Your task to perform on an android device: Open ESPN.com Image 0: 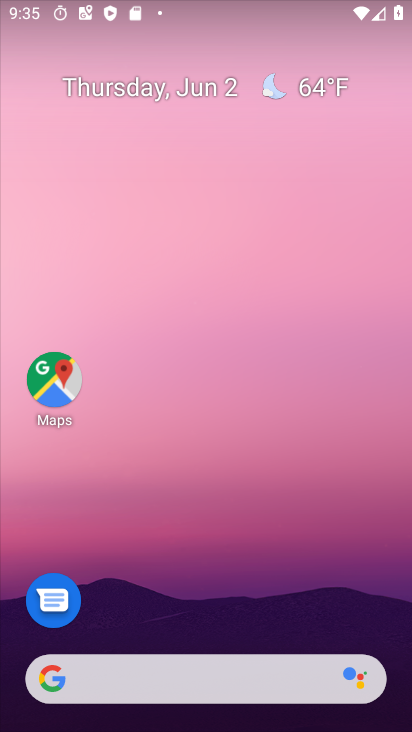
Step 0: drag from (164, 606) to (137, 54)
Your task to perform on an android device: Open ESPN.com Image 1: 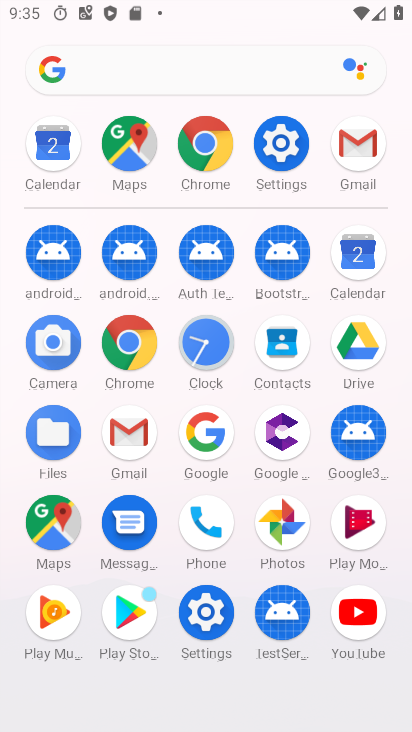
Step 1: click (211, 436)
Your task to perform on an android device: Open ESPN.com Image 2: 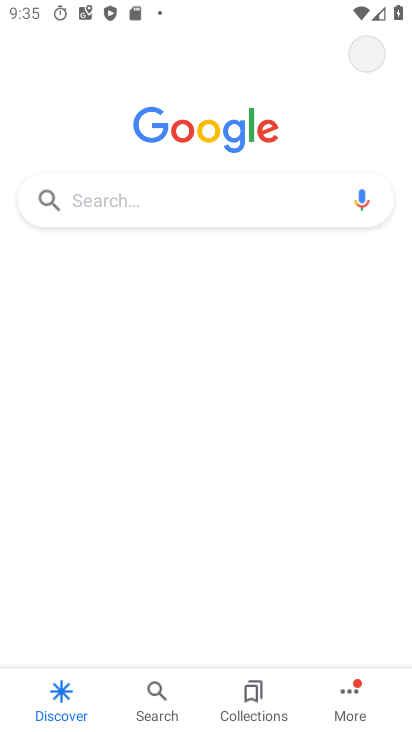
Step 2: click (193, 199)
Your task to perform on an android device: Open ESPN.com Image 3: 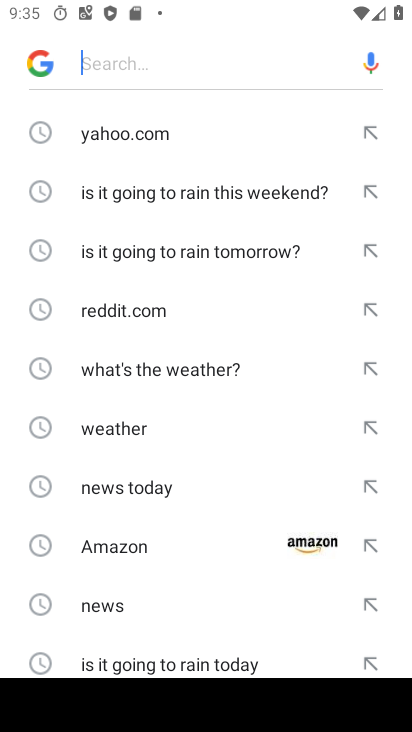
Step 3: drag from (169, 458) to (147, 129)
Your task to perform on an android device: Open ESPN.com Image 4: 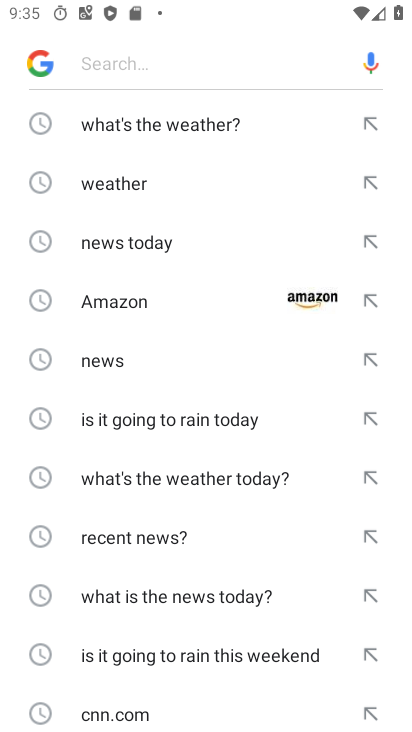
Step 4: drag from (196, 697) to (157, 225)
Your task to perform on an android device: Open ESPN.com Image 5: 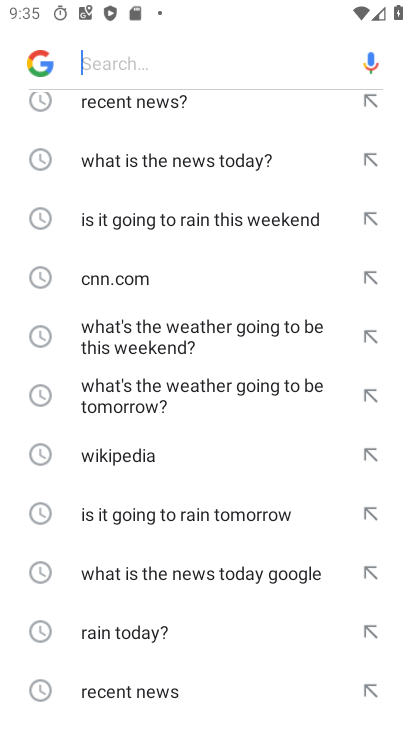
Step 5: drag from (167, 611) to (181, 306)
Your task to perform on an android device: Open ESPN.com Image 6: 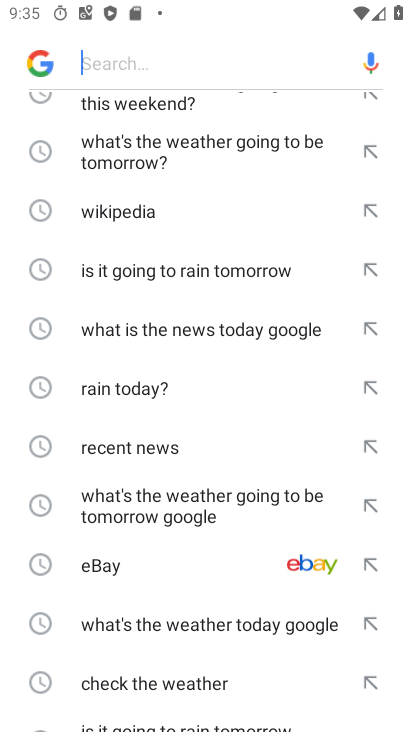
Step 6: drag from (218, 635) to (201, 69)
Your task to perform on an android device: Open ESPN.com Image 7: 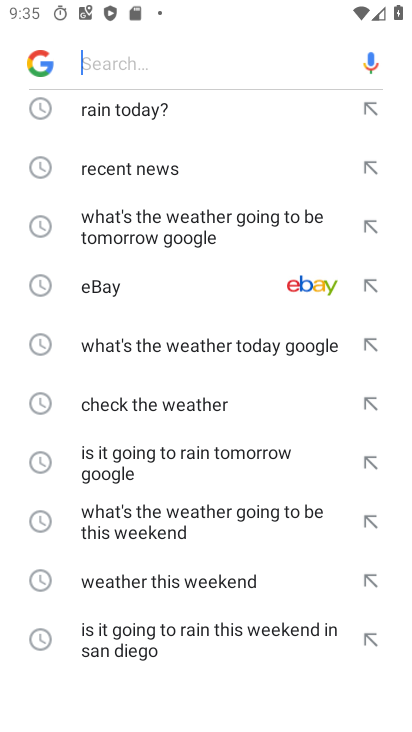
Step 7: type "espn.com"
Your task to perform on an android device: Open ESPN.com Image 8: 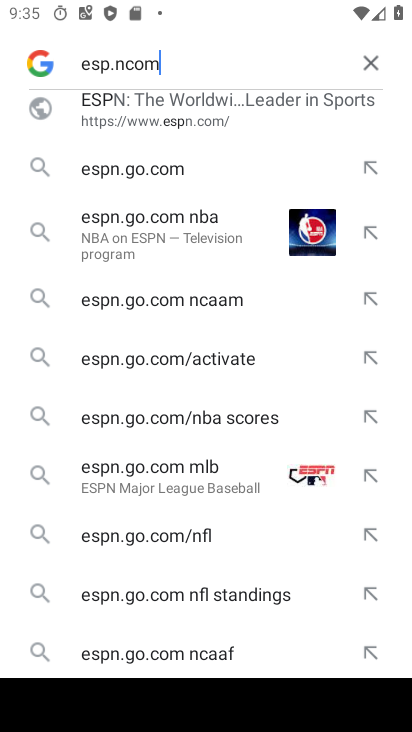
Step 8: click (184, 109)
Your task to perform on an android device: Open ESPN.com Image 9: 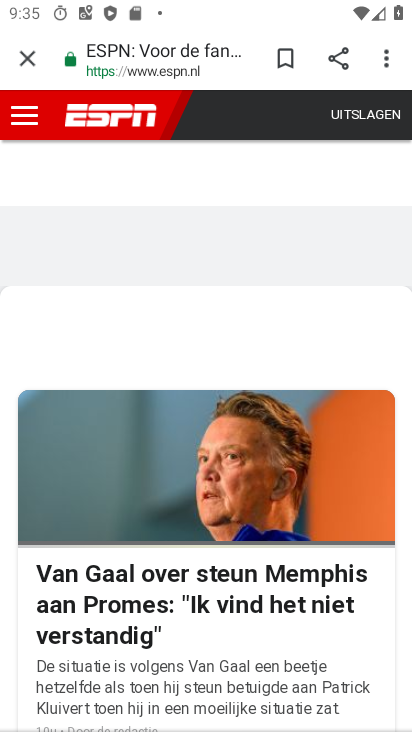
Step 9: task complete